Your task to perform on an android device: Open calendar and show me the fourth week of next month Image 0: 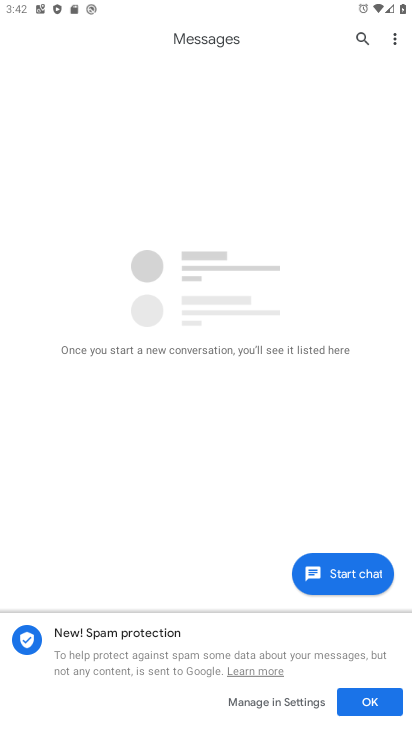
Step 0: click (368, 708)
Your task to perform on an android device: Open calendar and show me the fourth week of next month Image 1: 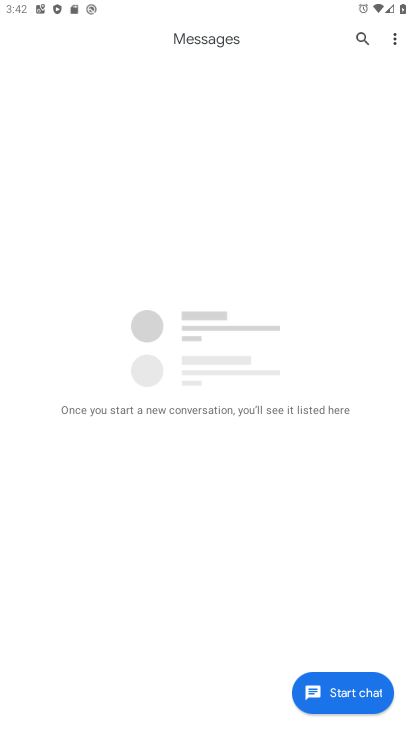
Step 1: press home button
Your task to perform on an android device: Open calendar and show me the fourth week of next month Image 2: 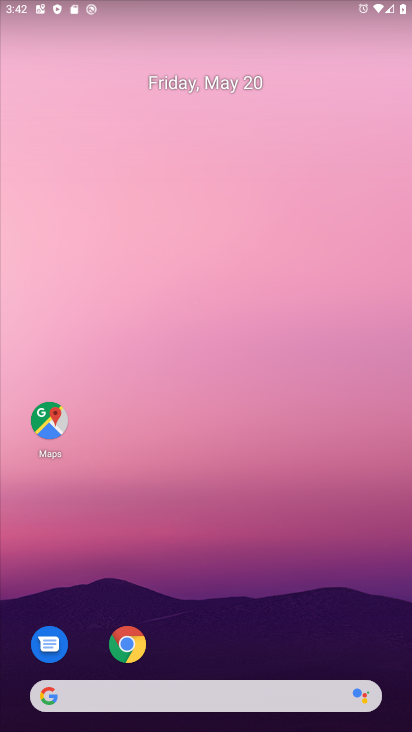
Step 2: drag from (281, 610) to (238, 78)
Your task to perform on an android device: Open calendar and show me the fourth week of next month Image 3: 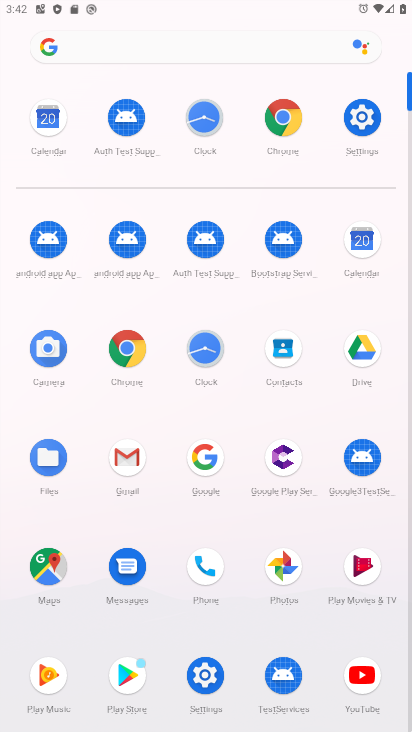
Step 3: click (368, 120)
Your task to perform on an android device: Open calendar and show me the fourth week of next month Image 4: 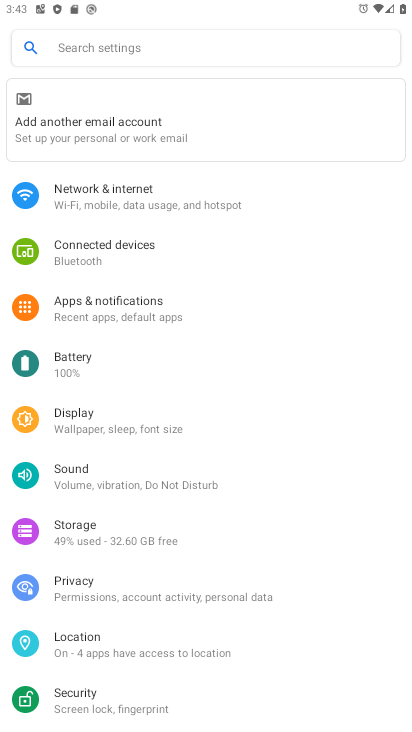
Step 4: press home button
Your task to perform on an android device: Open calendar and show me the fourth week of next month Image 5: 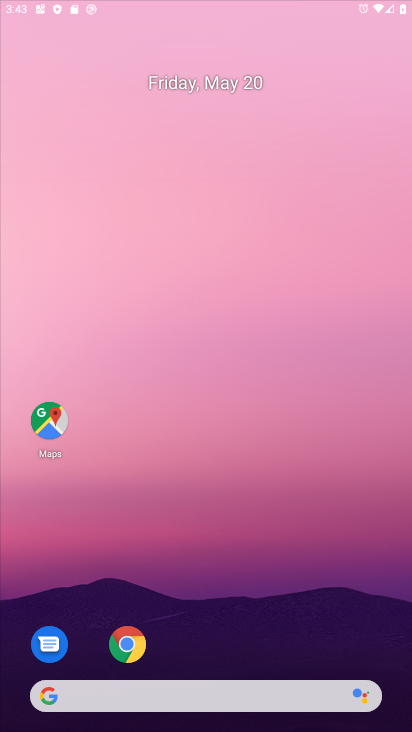
Step 5: press home button
Your task to perform on an android device: Open calendar and show me the fourth week of next month Image 6: 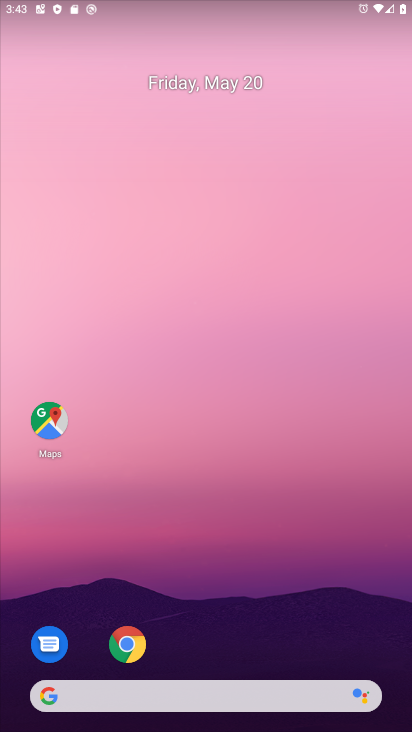
Step 6: click (130, 646)
Your task to perform on an android device: Open calendar and show me the fourth week of next month Image 7: 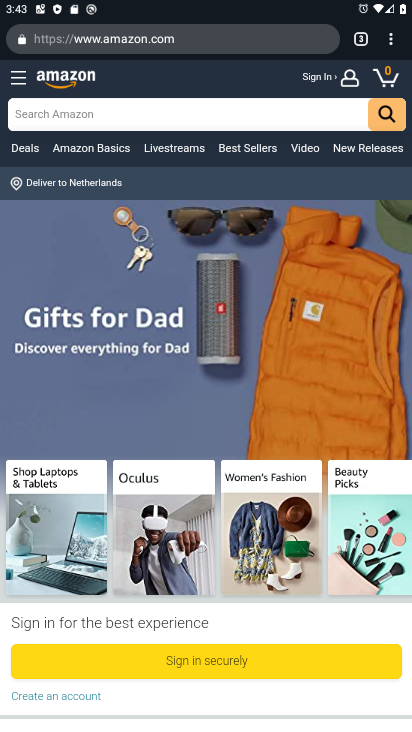
Step 7: press home button
Your task to perform on an android device: Open calendar and show me the fourth week of next month Image 8: 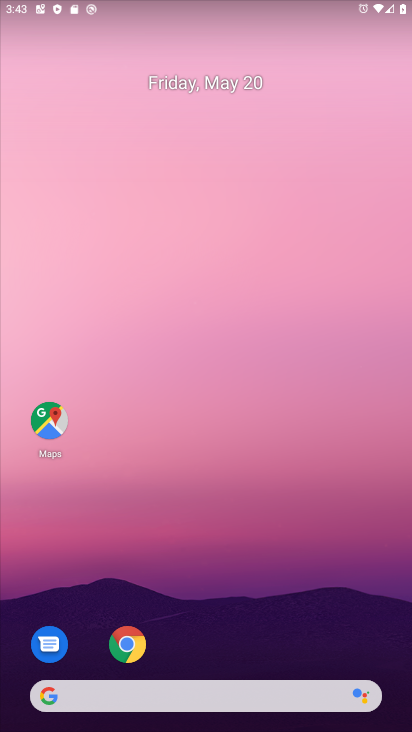
Step 8: drag from (265, 619) to (238, 123)
Your task to perform on an android device: Open calendar and show me the fourth week of next month Image 9: 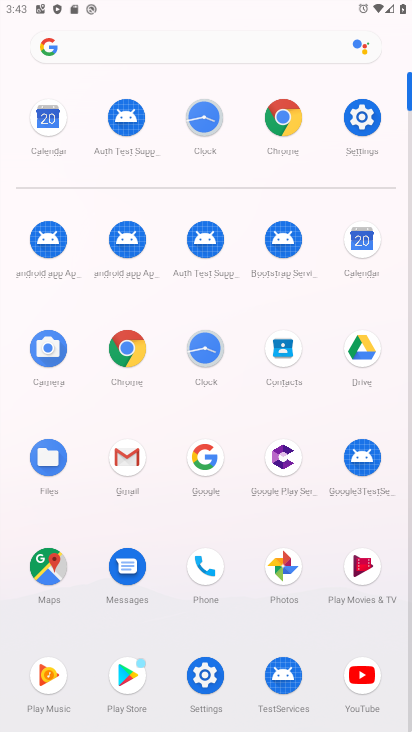
Step 9: click (377, 240)
Your task to perform on an android device: Open calendar and show me the fourth week of next month Image 10: 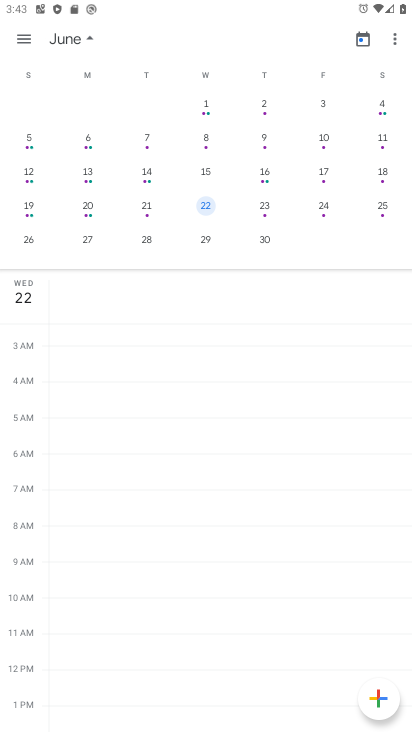
Step 10: task complete